Your task to perform on an android device: turn off smart reply in the gmail app Image 0: 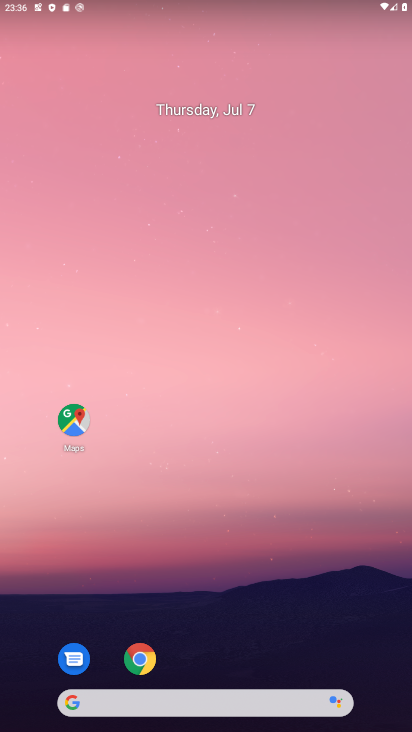
Step 0: drag from (184, 675) to (215, 83)
Your task to perform on an android device: turn off smart reply in the gmail app Image 1: 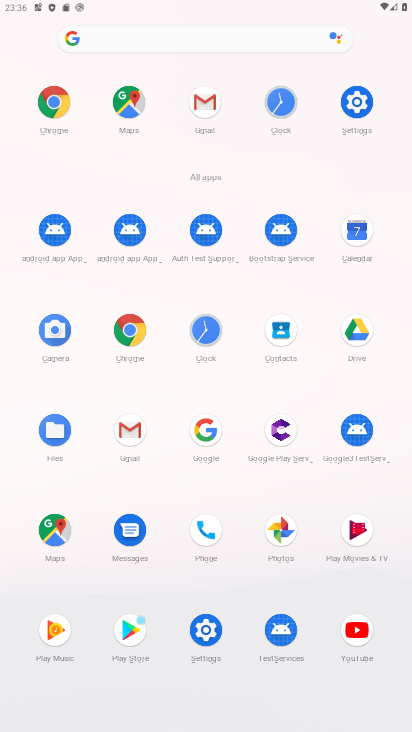
Step 1: click (215, 356)
Your task to perform on an android device: turn off smart reply in the gmail app Image 2: 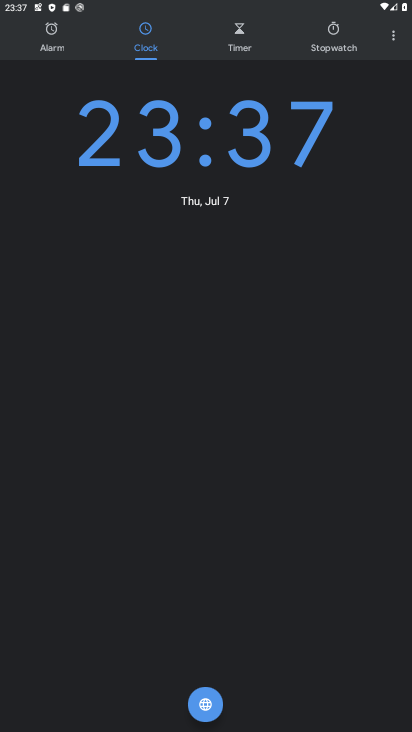
Step 2: press home button
Your task to perform on an android device: turn off smart reply in the gmail app Image 3: 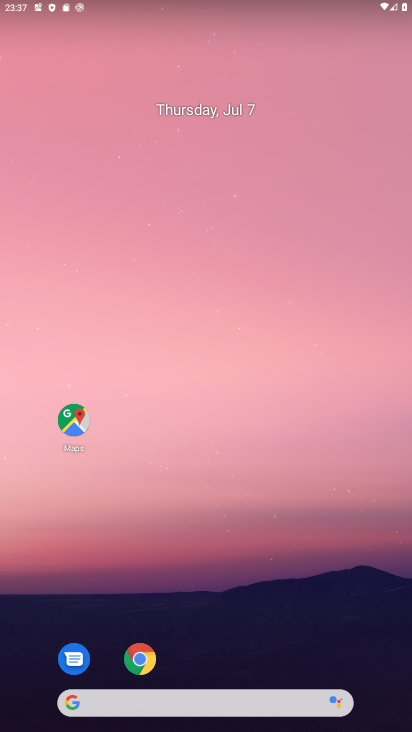
Step 3: drag from (196, 668) to (280, 42)
Your task to perform on an android device: turn off smart reply in the gmail app Image 4: 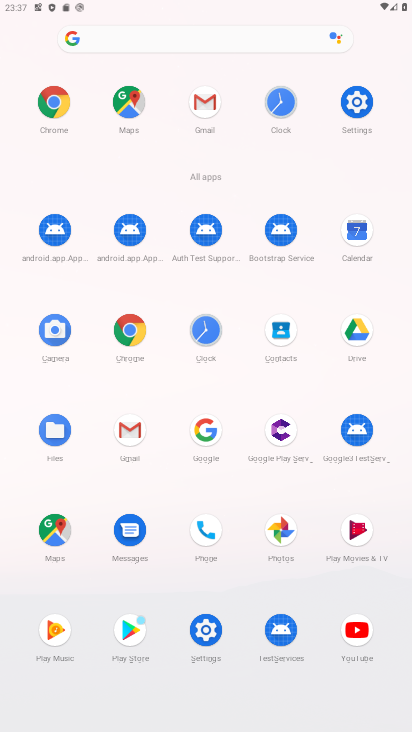
Step 4: click (203, 108)
Your task to perform on an android device: turn off smart reply in the gmail app Image 5: 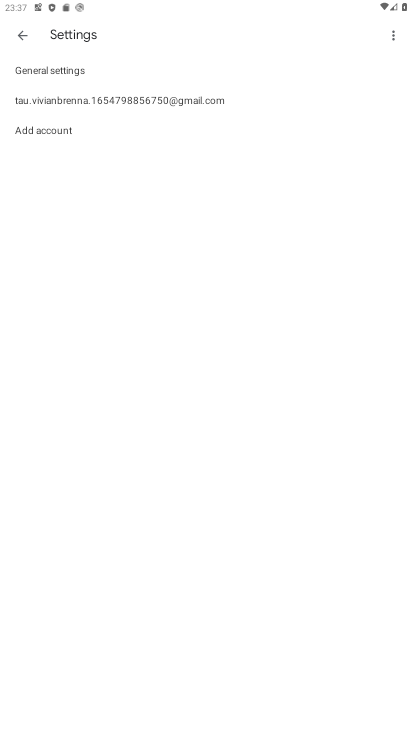
Step 5: click (206, 108)
Your task to perform on an android device: turn off smart reply in the gmail app Image 6: 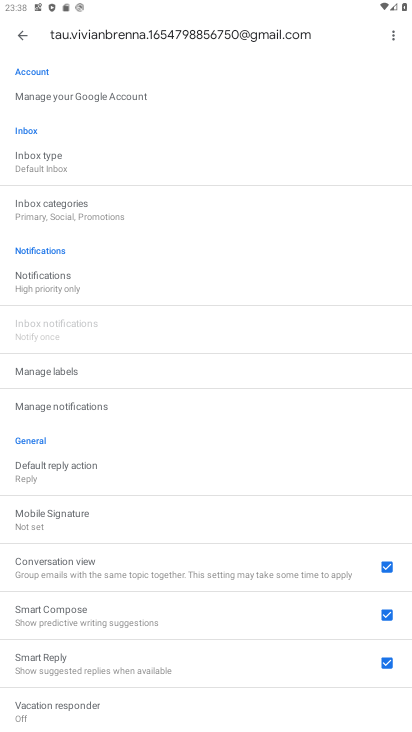
Step 6: click (385, 662)
Your task to perform on an android device: turn off smart reply in the gmail app Image 7: 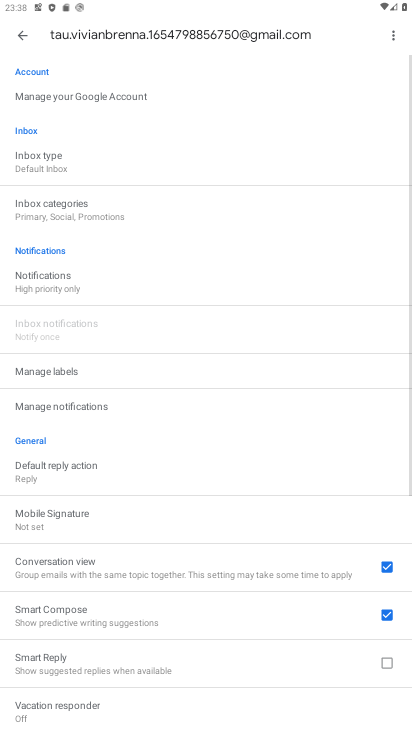
Step 7: task complete